Your task to perform on an android device: Go to battery settings Image 0: 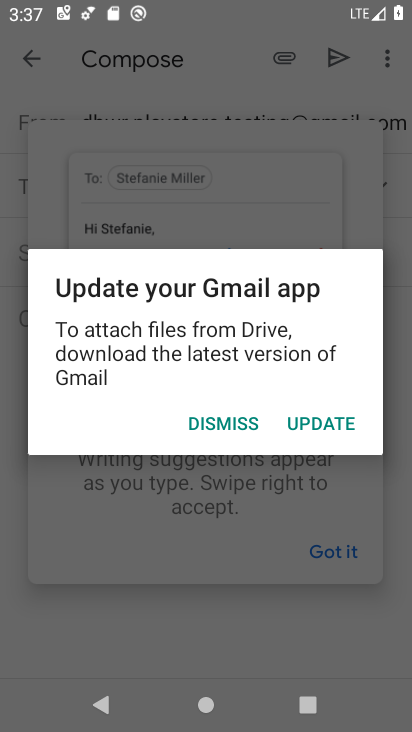
Step 0: press home button
Your task to perform on an android device: Go to battery settings Image 1: 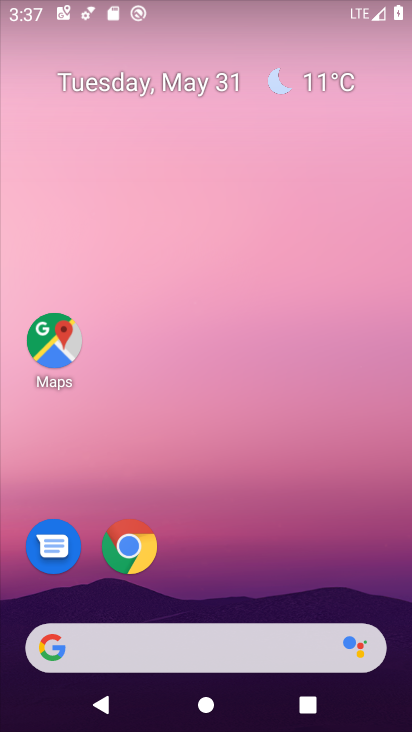
Step 1: drag from (261, 524) to (172, 8)
Your task to perform on an android device: Go to battery settings Image 2: 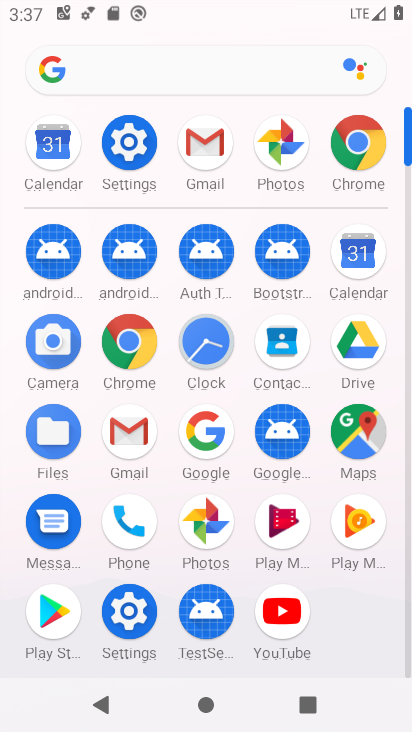
Step 2: click (122, 127)
Your task to perform on an android device: Go to battery settings Image 3: 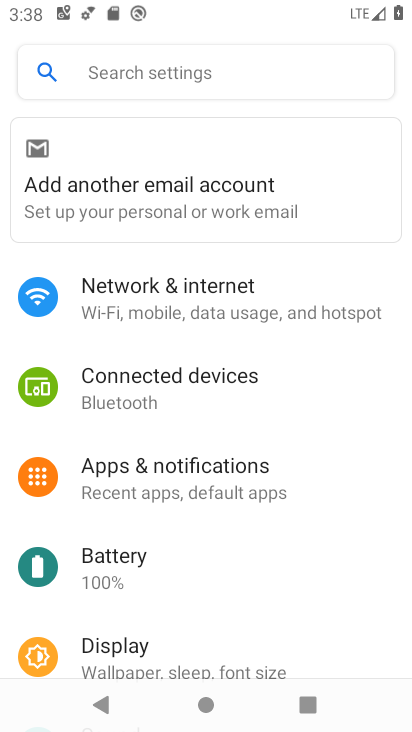
Step 3: click (189, 560)
Your task to perform on an android device: Go to battery settings Image 4: 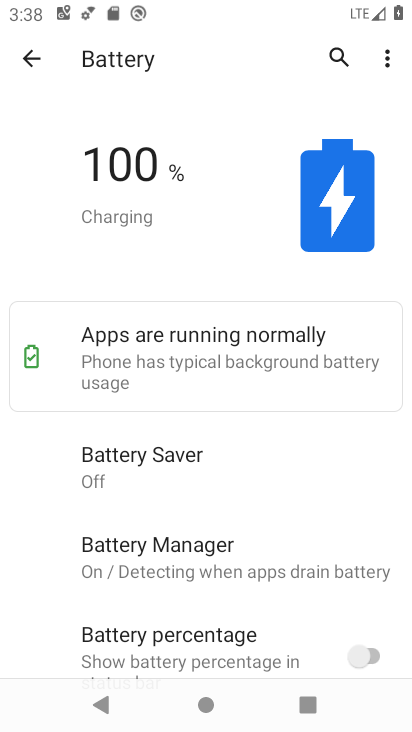
Step 4: task complete